Your task to perform on an android device: check storage Image 0: 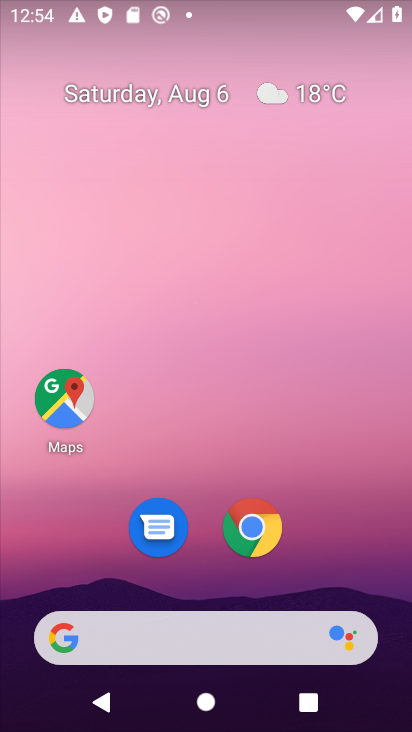
Step 0: drag from (190, 528) to (186, 90)
Your task to perform on an android device: check storage Image 1: 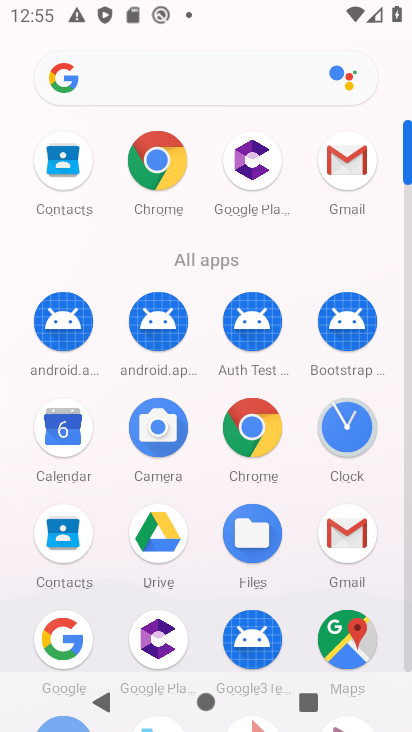
Step 1: drag from (229, 126) to (293, 5)
Your task to perform on an android device: check storage Image 2: 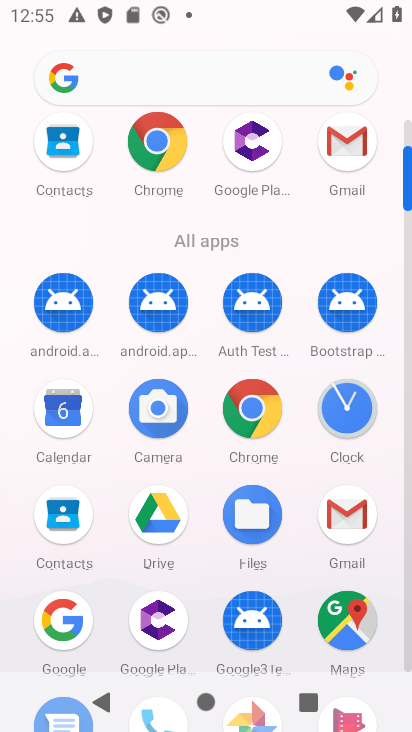
Step 2: drag from (207, 251) to (226, 0)
Your task to perform on an android device: check storage Image 3: 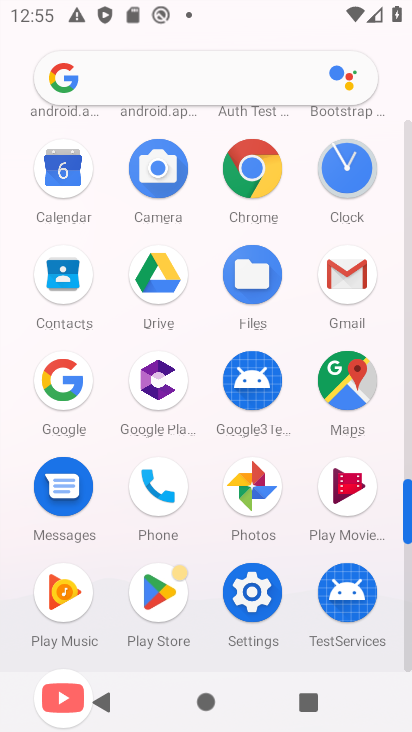
Step 3: click (257, 608)
Your task to perform on an android device: check storage Image 4: 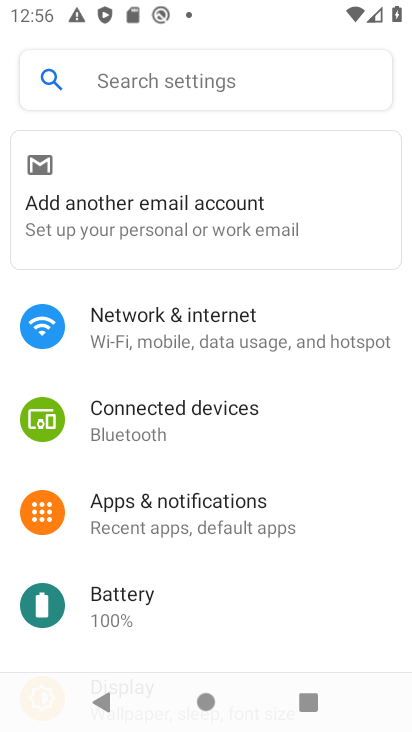
Step 4: drag from (140, 564) to (207, 147)
Your task to perform on an android device: check storage Image 5: 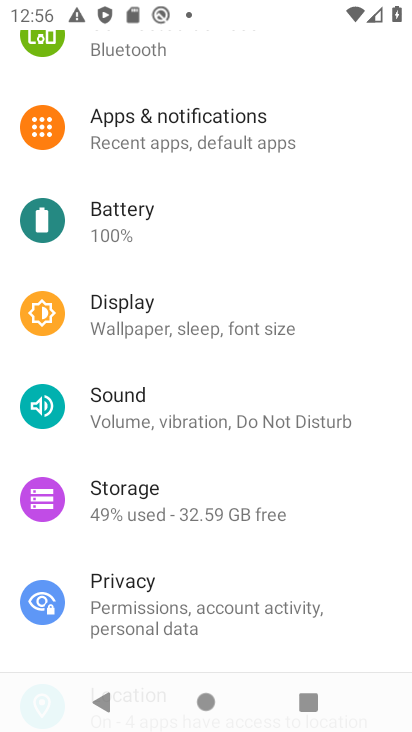
Step 5: click (174, 506)
Your task to perform on an android device: check storage Image 6: 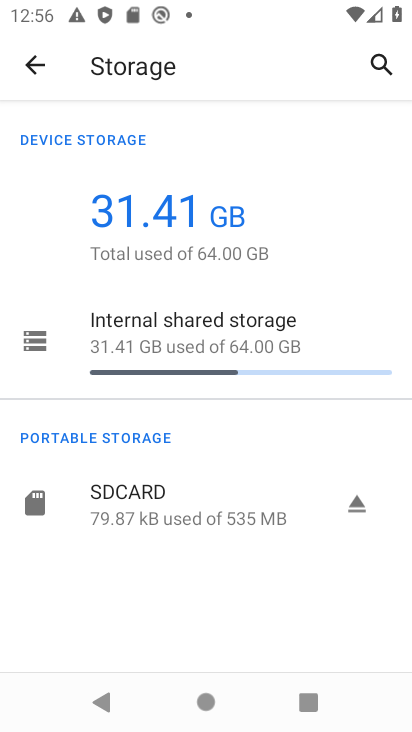
Step 6: click (203, 335)
Your task to perform on an android device: check storage Image 7: 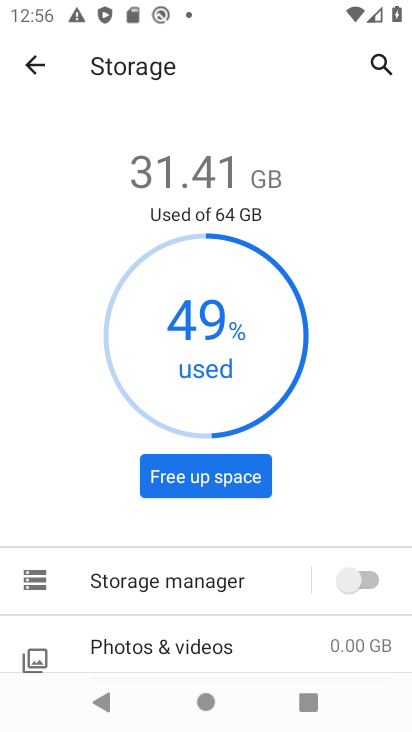
Step 7: task complete